Your task to perform on an android device: star an email in the gmail app Image 0: 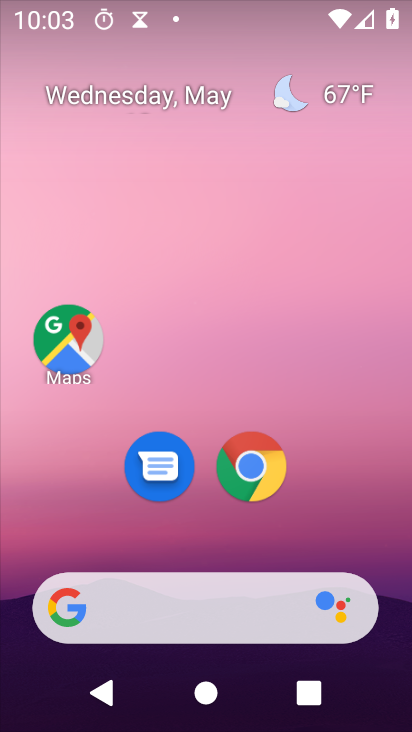
Step 0: drag from (271, 518) to (215, 44)
Your task to perform on an android device: star an email in the gmail app Image 1: 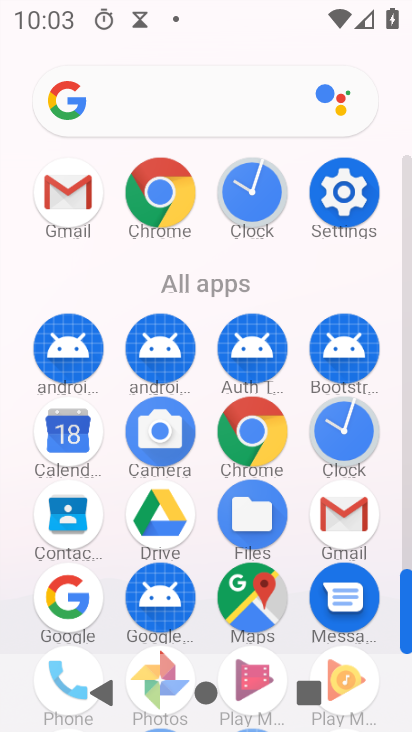
Step 1: click (59, 214)
Your task to perform on an android device: star an email in the gmail app Image 2: 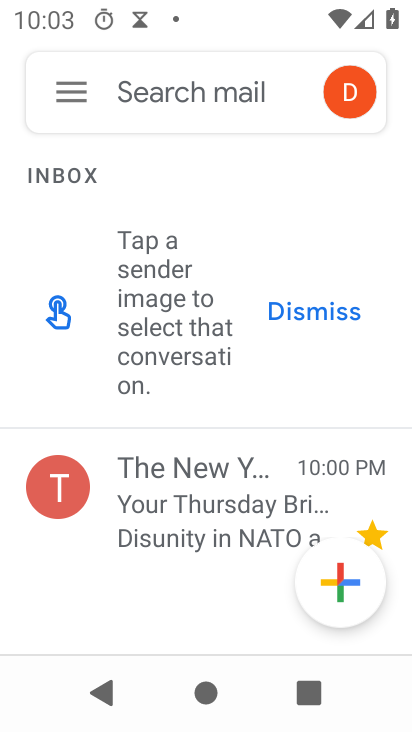
Step 2: task complete